Your task to perform on an android device: Open the map Image 0: 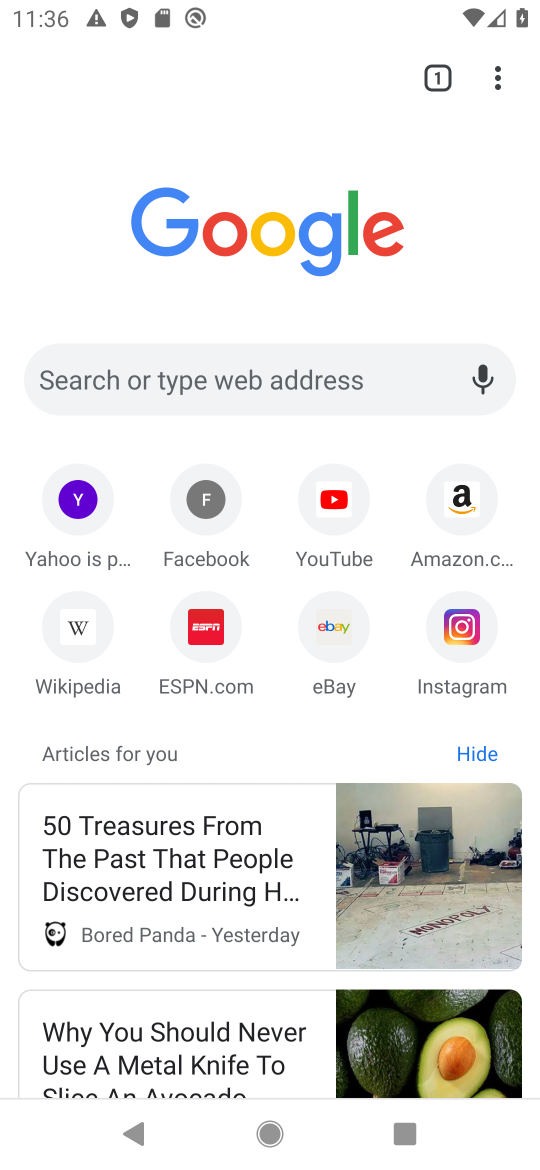
Step 0: press home button
Your task to perform on an android device: Open the map Image 1: 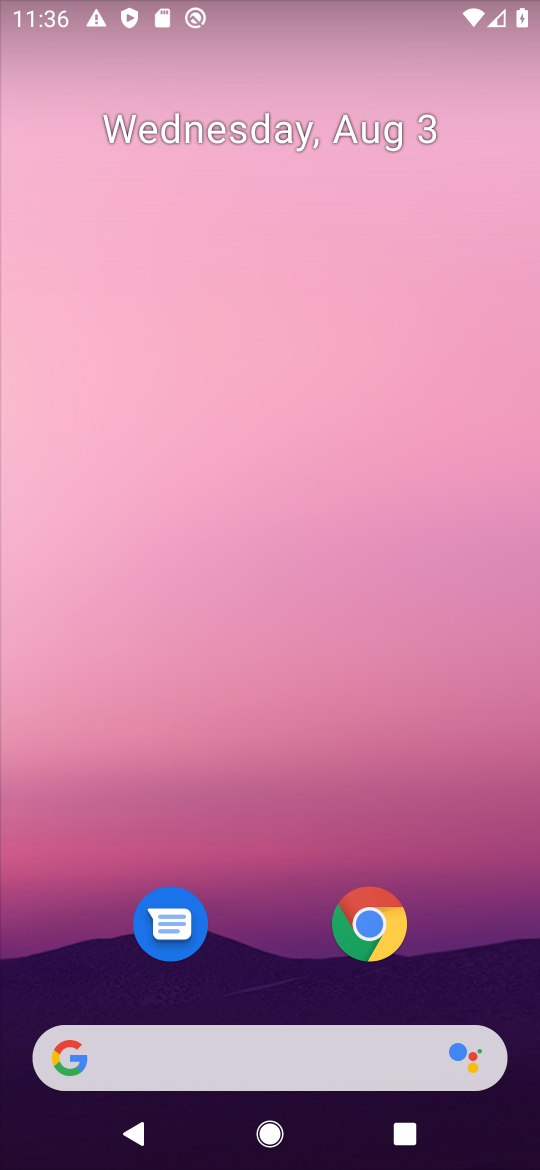
Step 1: drag from (95, 946) to (513, 80)
Your task to perform on an android device: Open the map Image 2: 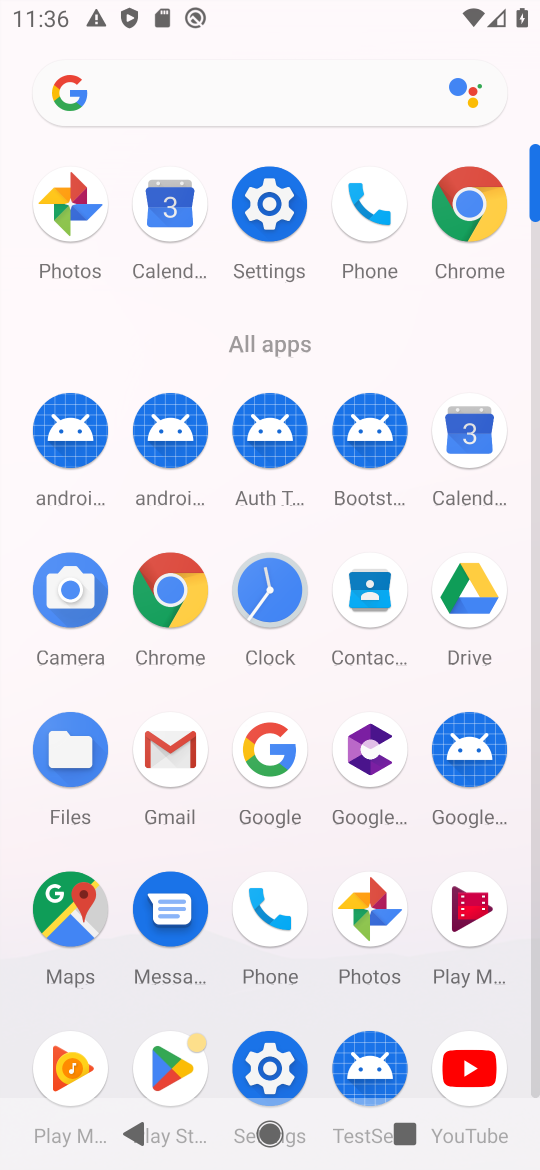
Step 2: click (87, 929)
Your task to perform on an android device: Open the map Image 3: 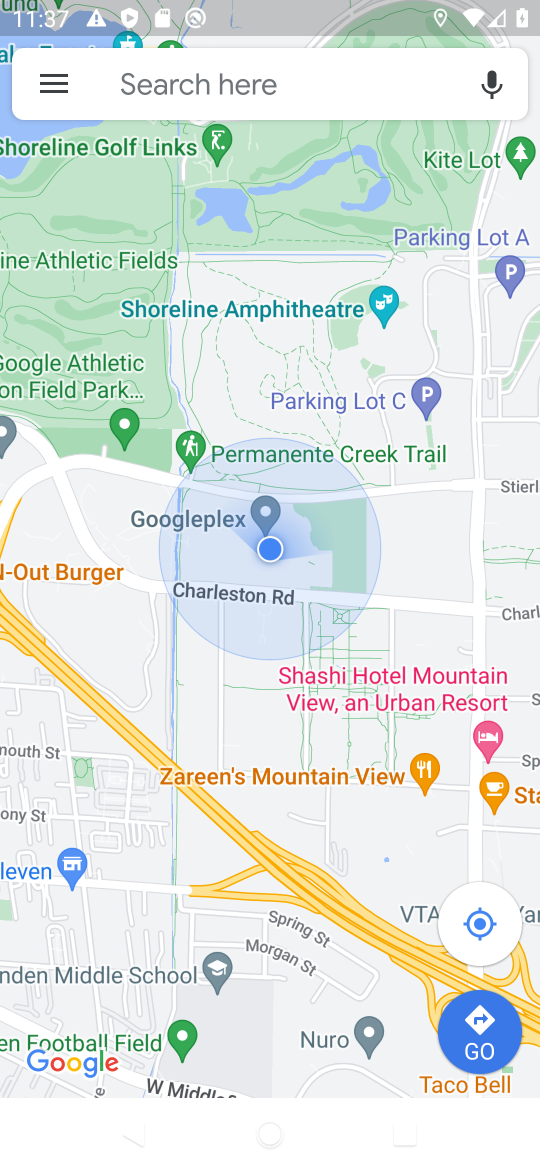
Step 3: task complete